Your task to perform on an android device: turn off location history Image 0: 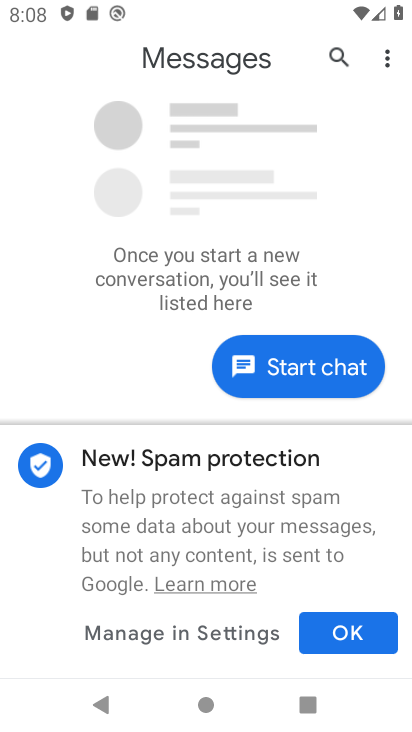
Step 0: press back button
Your task to perform on an android device: turn off location history Image 1: 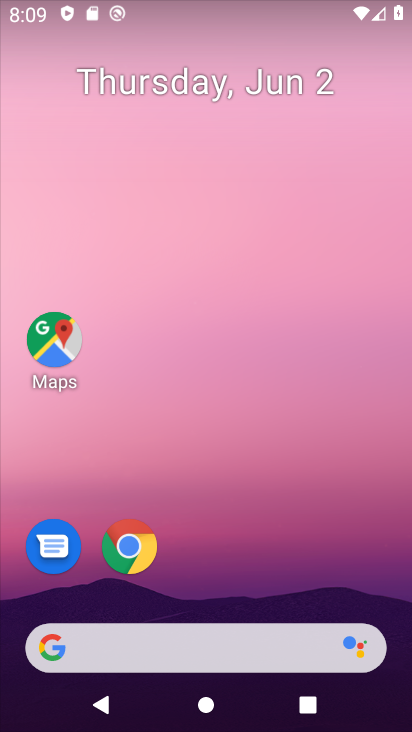
Step 1: drag from (254, 687) to (181, 251)
Your task to perform on an android device: turn off location history Image 2: 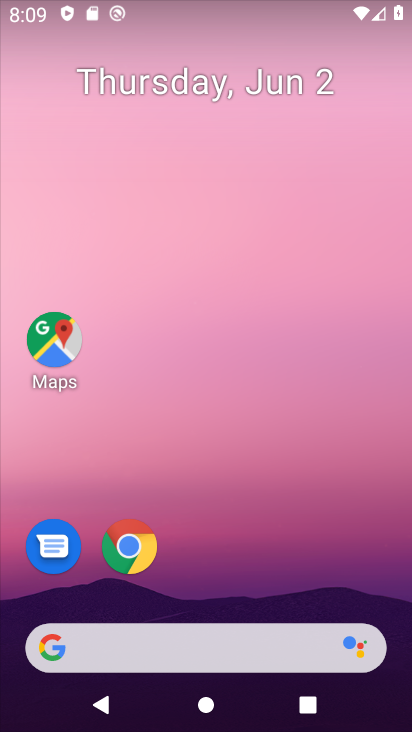
Step 2: drag from (211, 592) to (107, 94)
Your task to perform on an android device: turn off location history Image 3: 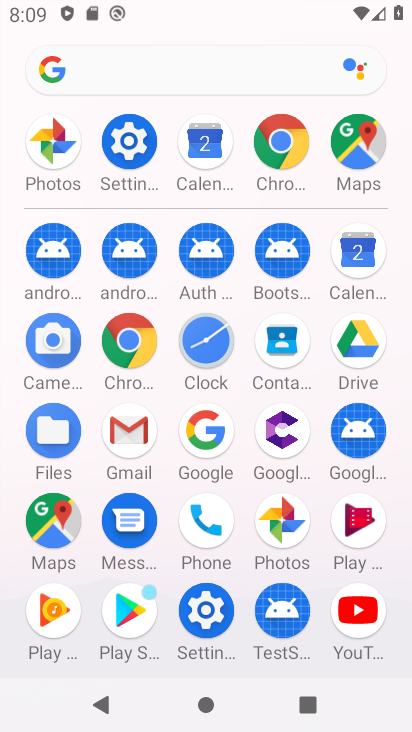
Step 3: click (199, 613)
Your task to perform on an android device: turn off location history Image 4: 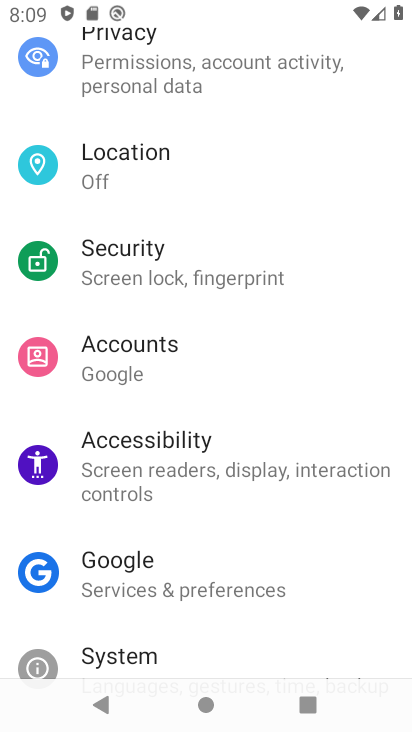
Step 4: click (123, 154)
Your task to perform on an android device: turn off location history Image 5: 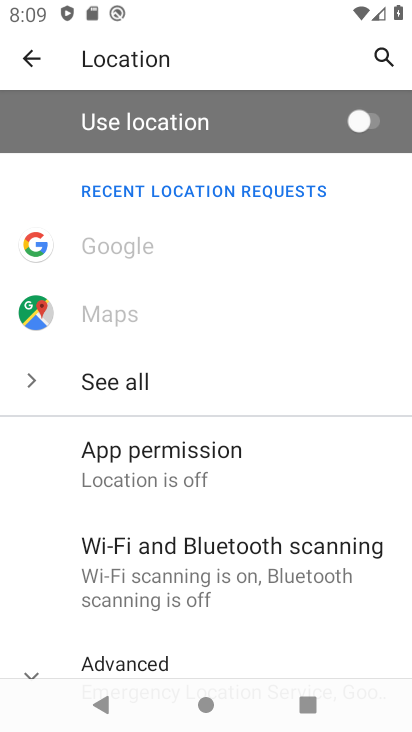
Step 5: drag from (194, 473) to (194, 217)
Your task to perform on an android device: turn off location history Image 6: 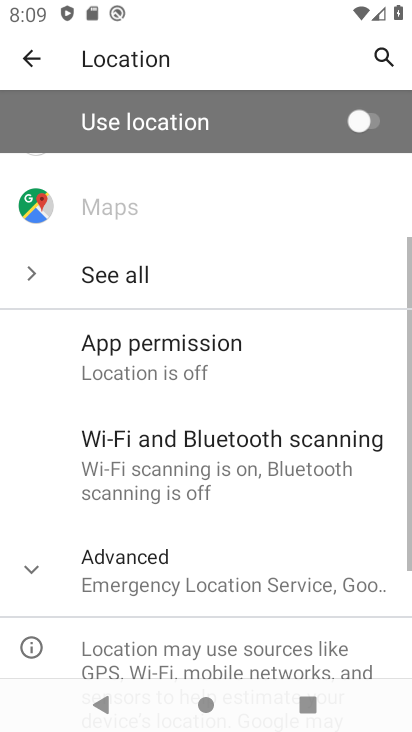
Step 6: drag from (251, 400) to (251, 131)
Your task to perform on an android device: turn off location history Image 7: 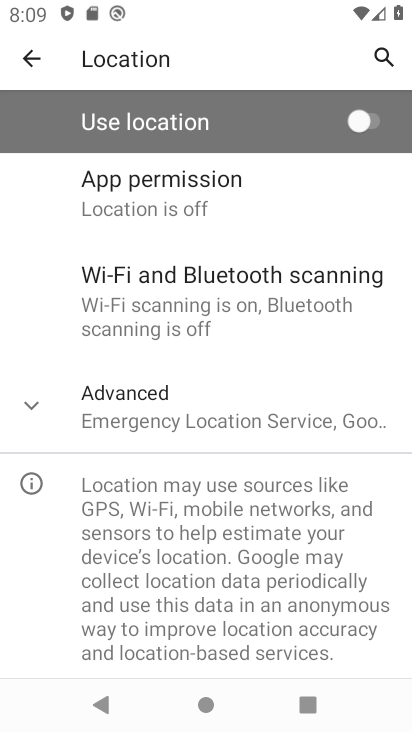
Step 7: click (120, 400)
Your task to perform on an android device: turn off location history Image 8: 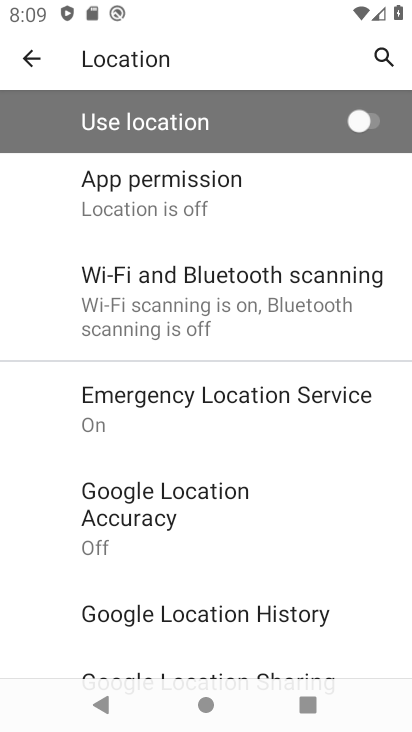
Step 8: click (182, 611)
Your task to perform on an android device: turn off location history Image 9: 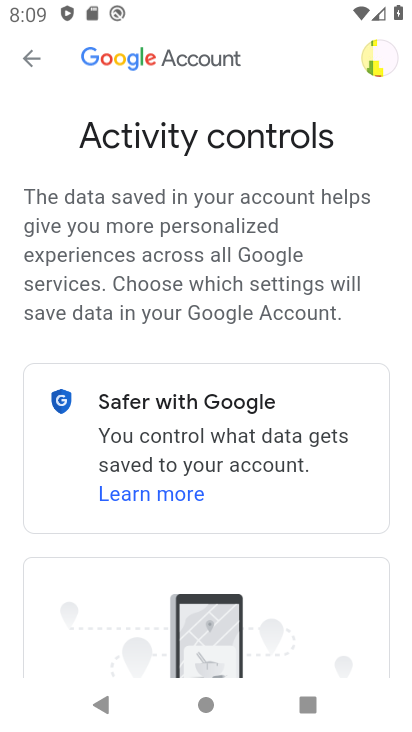
Step 9: drag from (212, 489) to (165, 92)
Your task to perform on an android device: turn off location history Image 10: 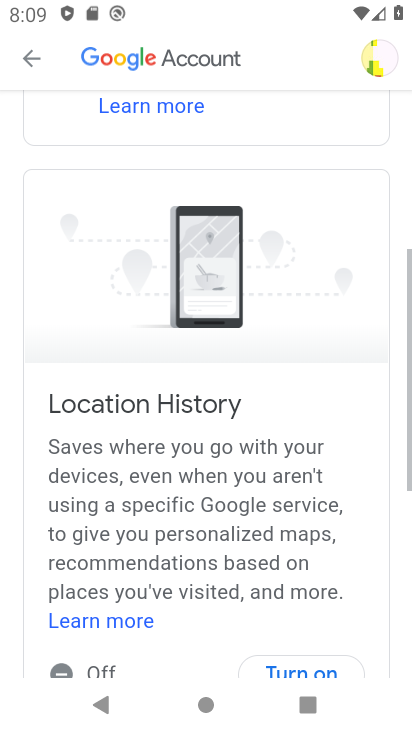
Step 10: drag from (239, 433) to (228, 73)
Your task to perform on an android device: turn off location history Image 11: 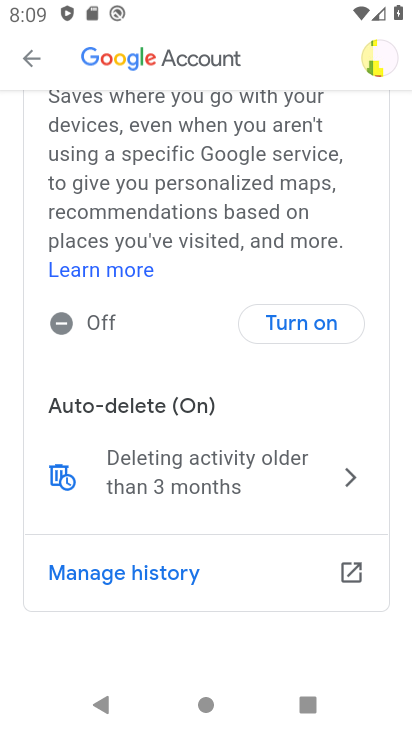
Step 11: click (296, 326)
Your task to perform on an android device: turn off location history Image 12: 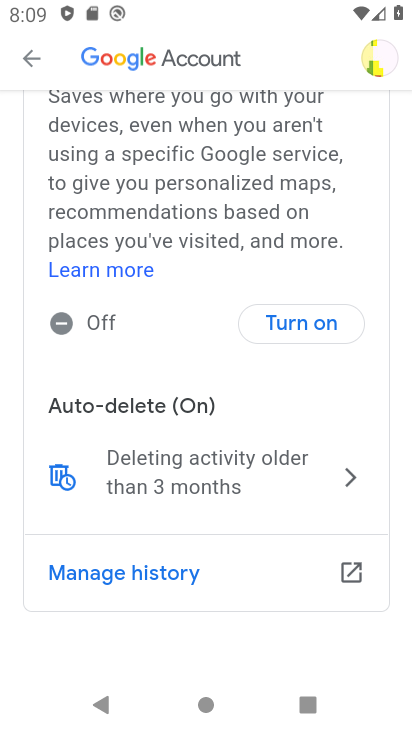
Step 12: click (297, 325)
Your task to perform on an android device: turn off location history Image 13: 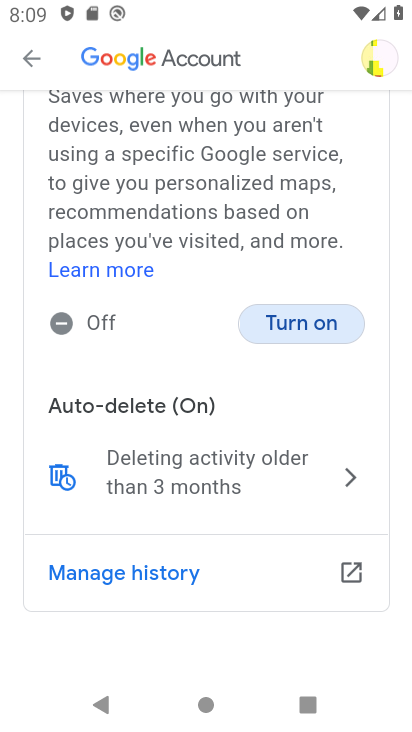
Step 13: click (298, 325)
Your task to perform on an android device: turn off location history Image 14: 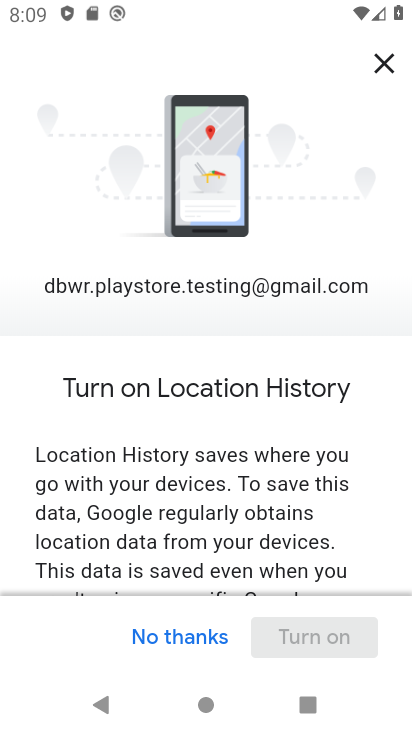
Step 14: drag from (219, 546) to (209, 213)
Your task to perform on an android device: turn off location history Image 15: 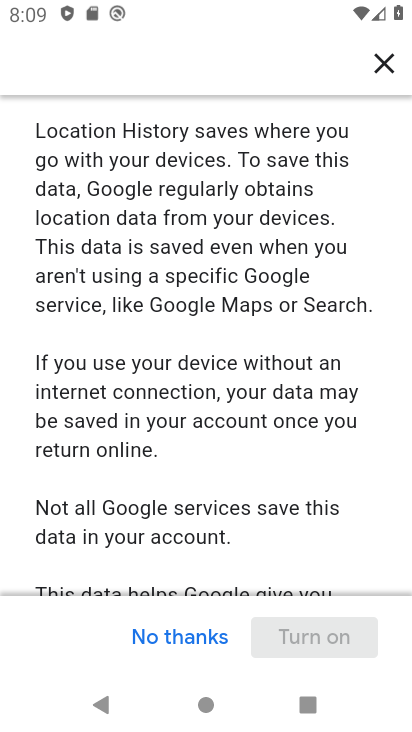
Step 15: drag from (223, 396) to (176, 44)
Your task to perform on an android device: turn off location history Image 16: 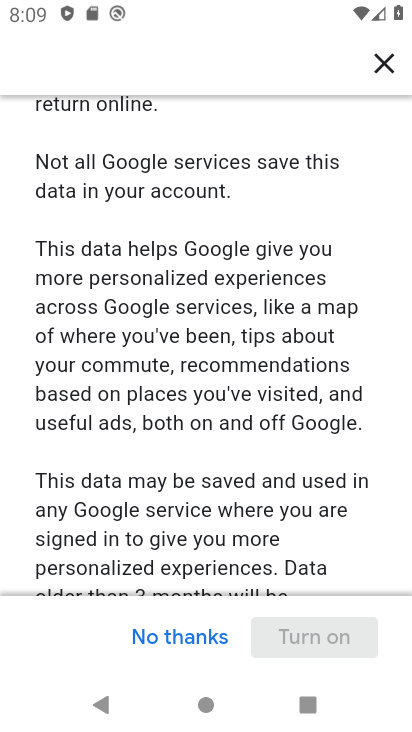
Step 16: drag from (205, 312) to (208, 117)
Your task to perform on an android device: turn off location history Image 17: 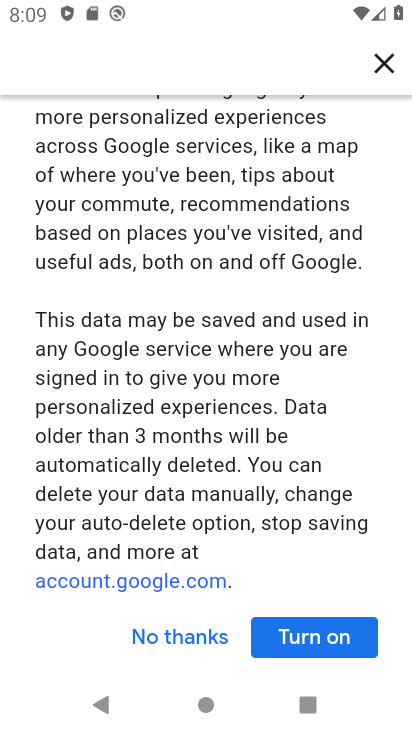
Step 17: drag from (219, 315) to (176, 152)
Your task to perform on an android device: turn off location history Image 18: 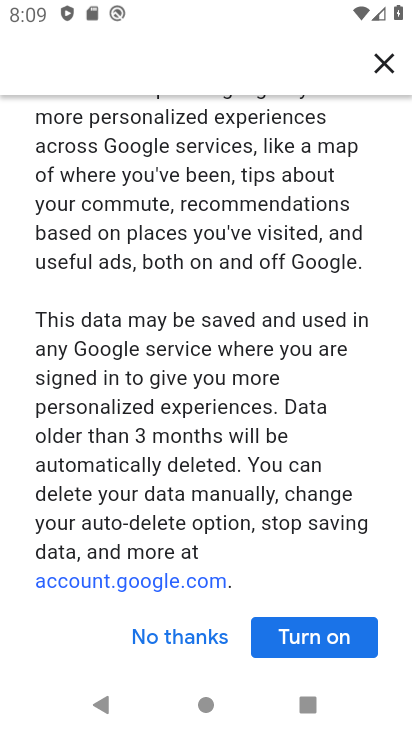
Step 18: click (189, 637)
Your task to perform on an android device: turn off location history Image 19: 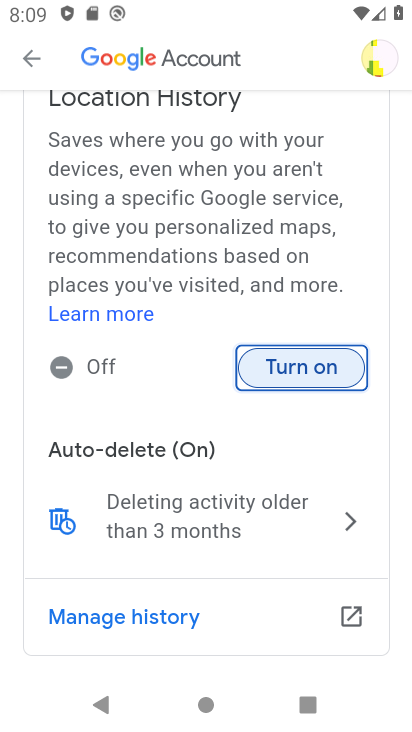
Step 19: click (51, 354)
Your task to perform on an android device: turn off location history Image 20: 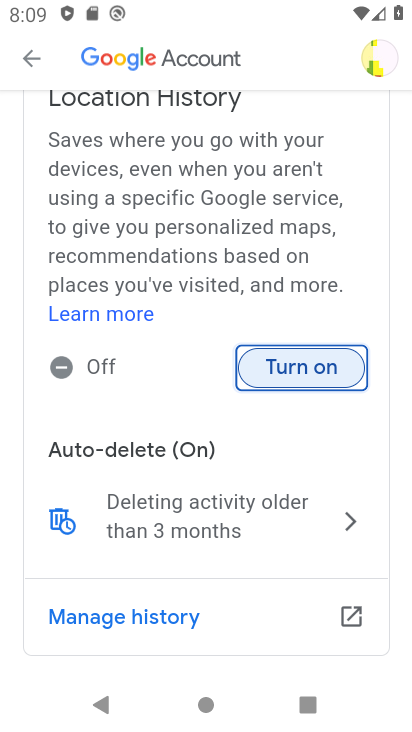
Step 20: click (63, 362)
Your task to perform on an android device: turn off location history Image 21: 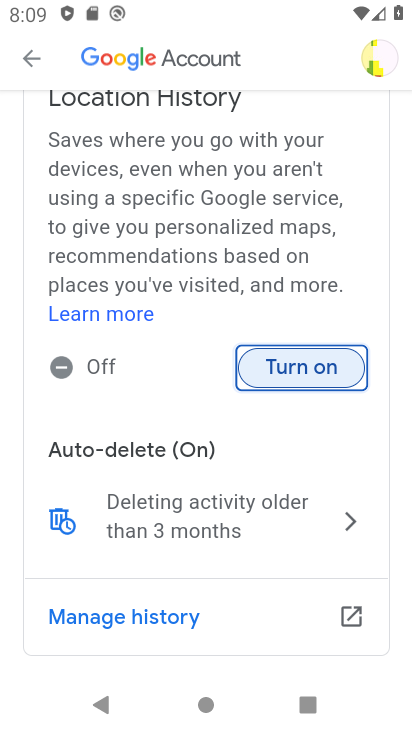
Step 21: click (63, 362)
Your task to perform on an android device: turn off location history Image 22: 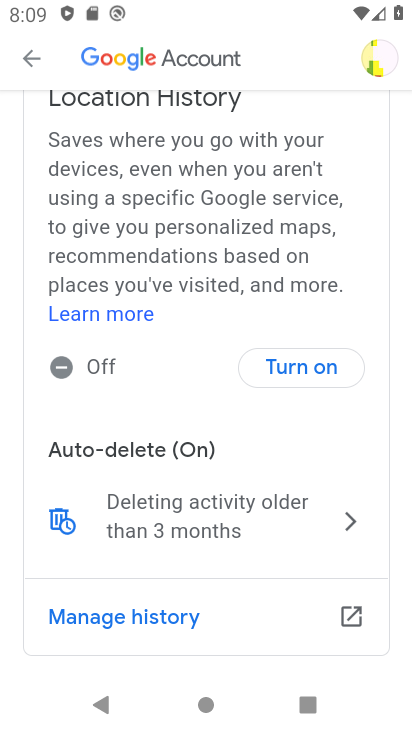
Step 22: click (88, 369)
Your task to perform on an android device: turn off location history Image 23: 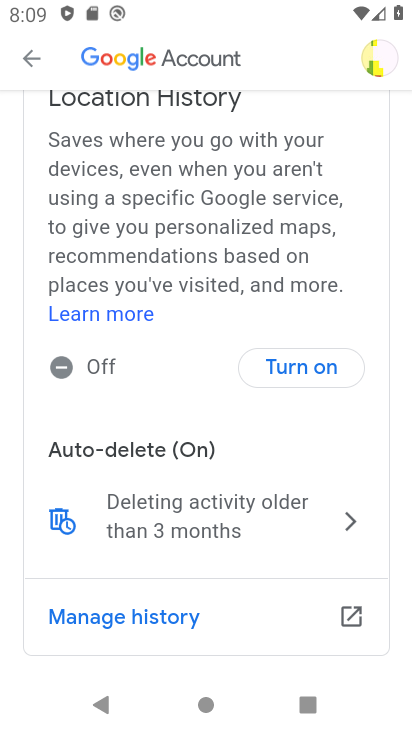
Step 23: click (89, 369)
Your task to perform on an android device: turn off location history Image 24: 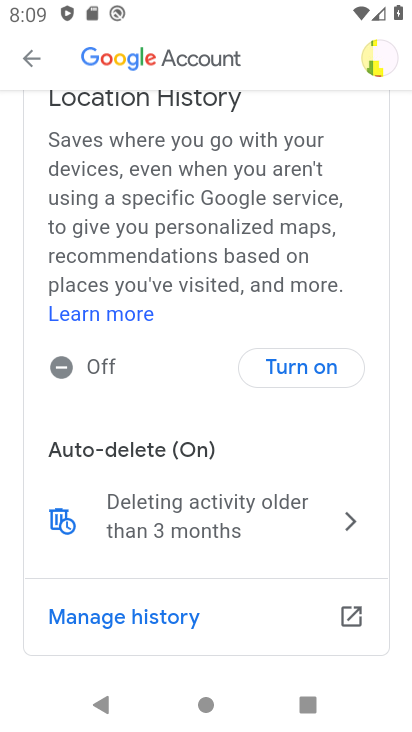
Step 24: click (92, 368)
Your task to perform on an android device: turn off location history Image 25: 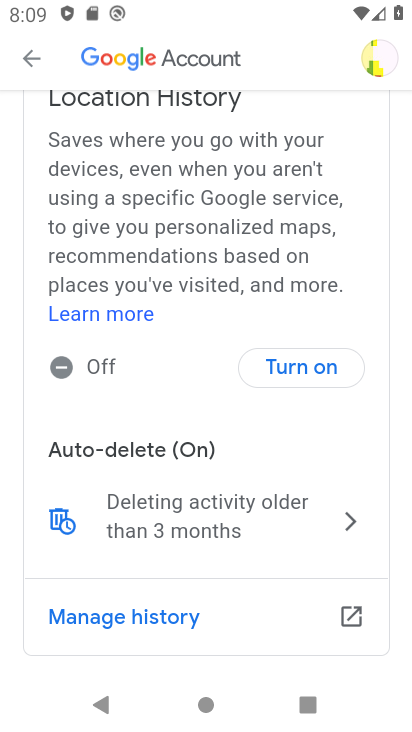
Step 25: click (93, 368)
Your task to perform on an android device: turn off location history Image 26: 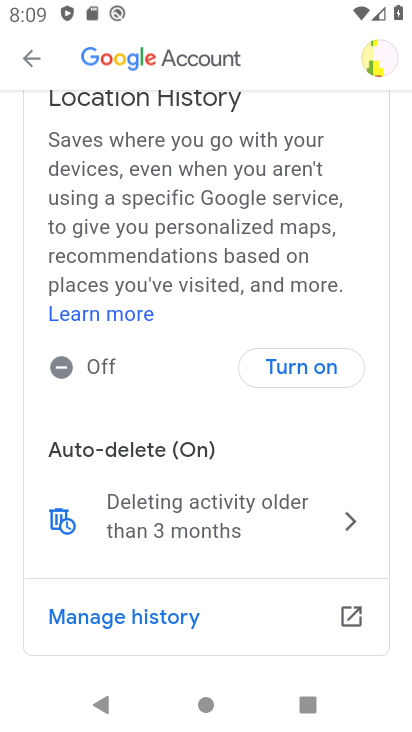
Step 26: click (329, 366)
Your task to perform on an android device: turn off location history Image 27: 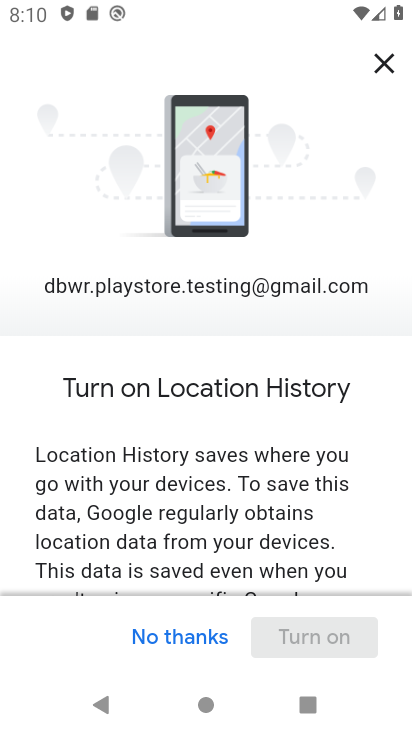
Step 27: task complete